Your task to perform on an android device: toggle notifications settings in the gmail app Image 0: 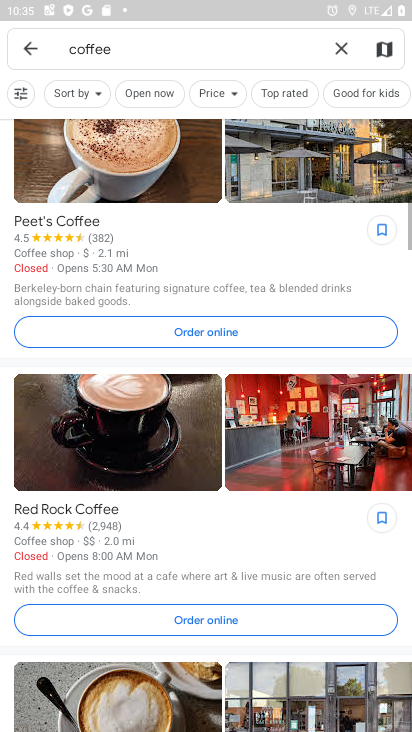
Step 0: press home button
Your task to perform on an android device: toggle notifications settings in the gmail app Image 1: 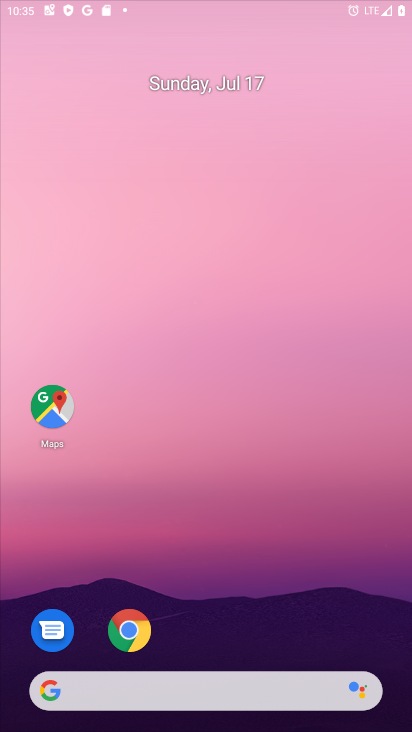
Step 1: press home button
Your task to perform on an android device: toggle notifications settings in the gmail app Image 2: 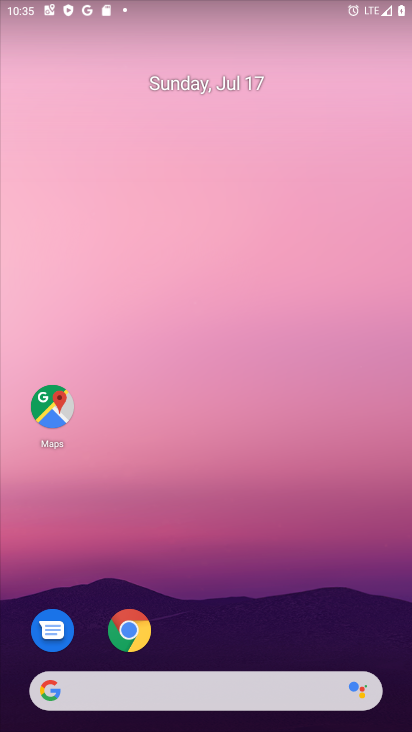
Step 2: drag from (221, 643) to (235, 61)
Your task to perform on an android device: toggle notifications settings in the gmail app Image 3: 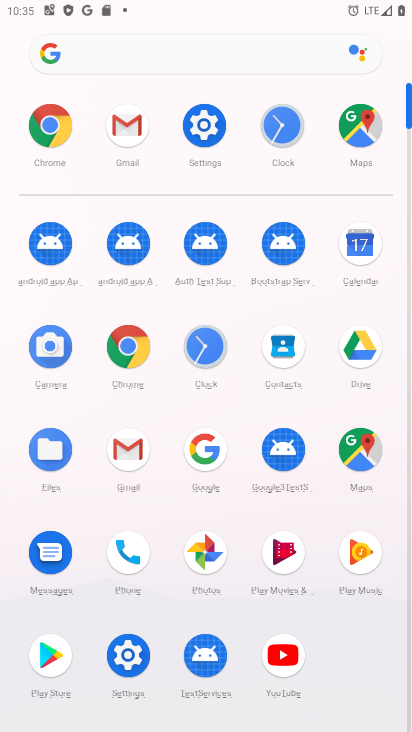
Step 3: click (127, 120)
Your task to perform on an android device: toggle notifications settings in the gmail app Image 4: 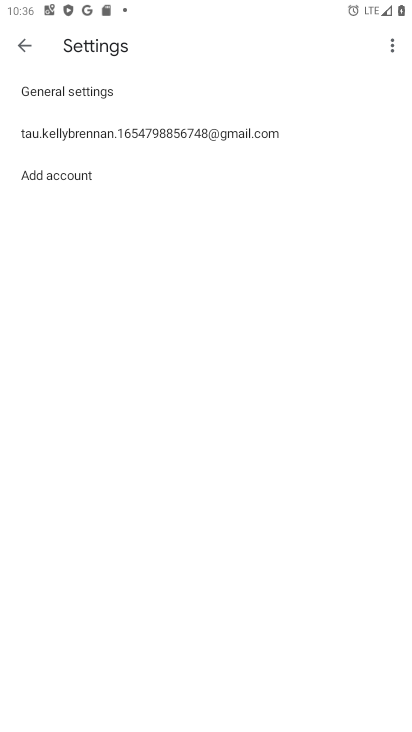
Step 4: click (131, 89)
Your task to perform on an android device: toggle notifications settings in the gmail app Image 5: 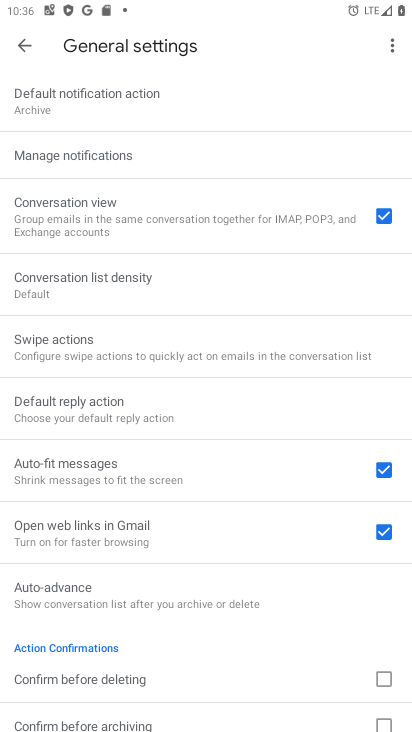
Step 5: click (149, 152)
Your task to perform on an android device: toggle notifications settings in the gmail app Image 6: 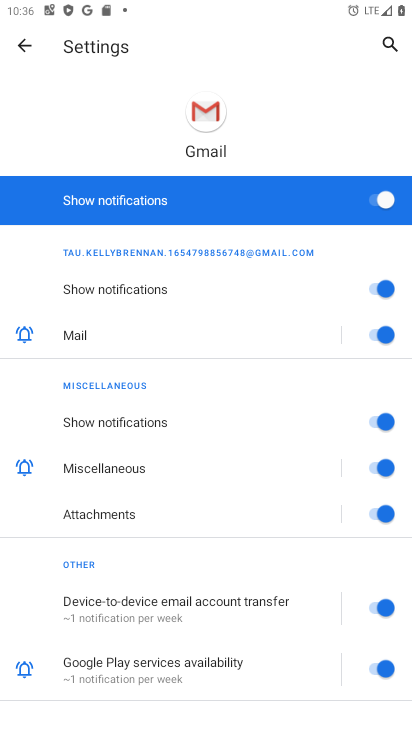
Step 6: click (375, 197)
Your task to perform on an android device: toggle notifications settings in the gmail app Image 7: 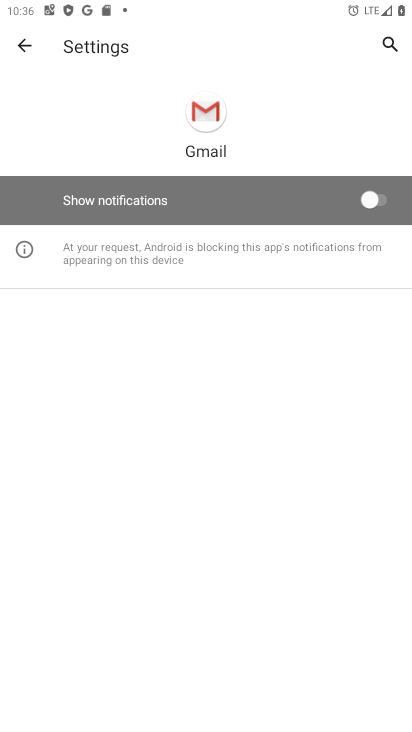
Step 7: task complete